Your task to perform on an android device: Turn off the flashlight Image 0: 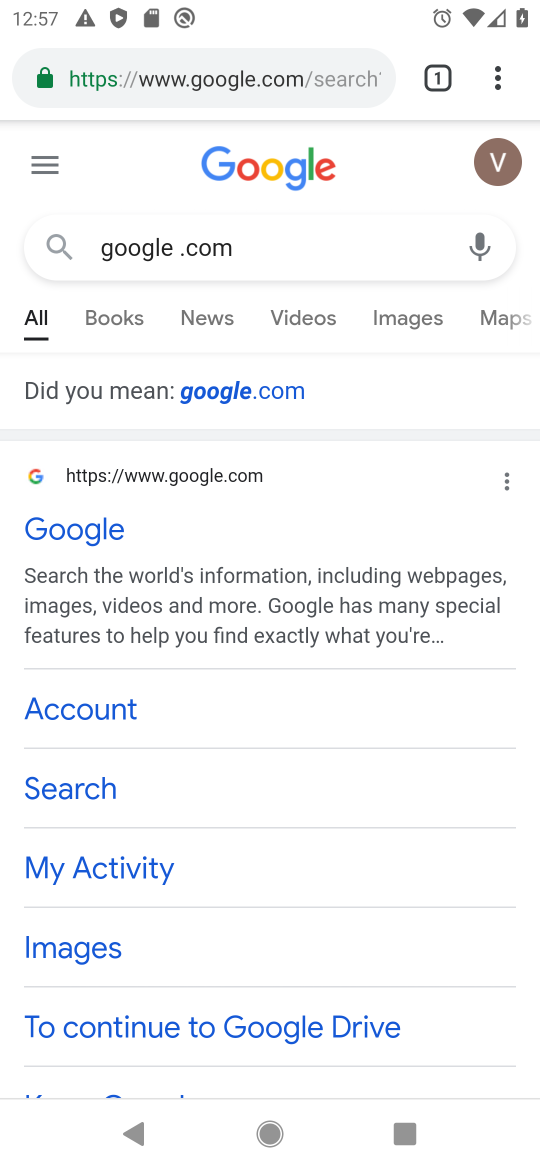
Step 0: press home button
Your task to perform on an android device: Turn off the flashlight Image 1: 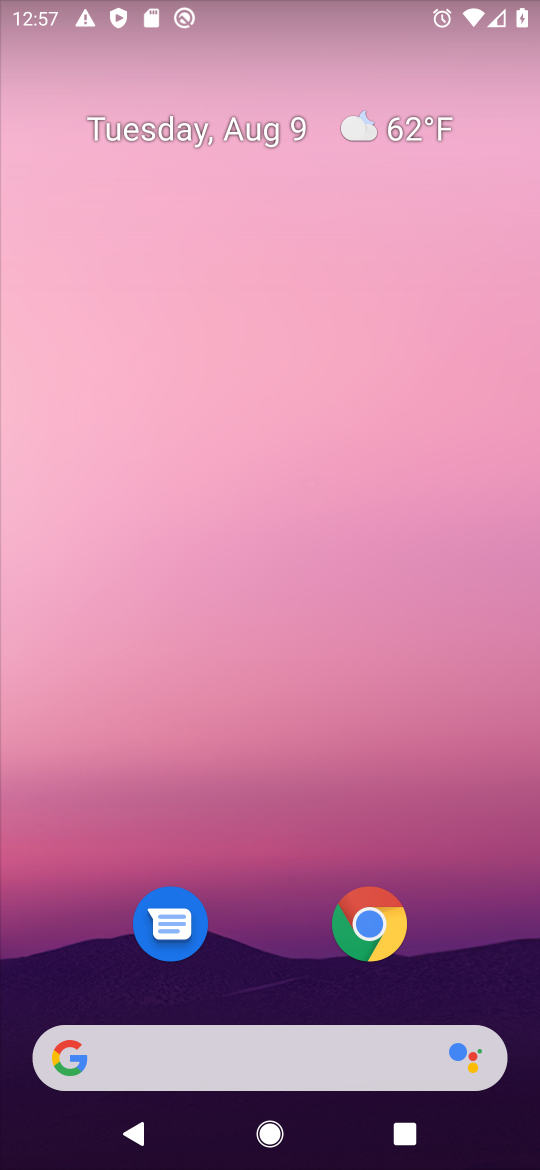
Step 1: drag from (263, 988) to (286, 0)
Your task to perform on an android device: Turn off the flashlight Image 2: 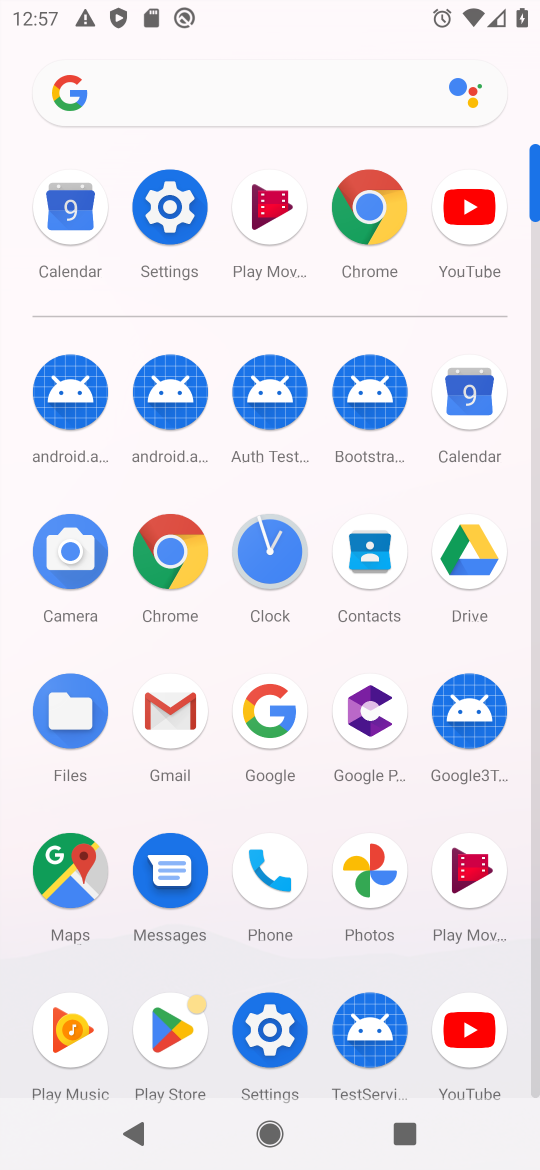
Step 2: click (200, 209)
Your task to perform on an android device: Turn off the flashlight Image 3: 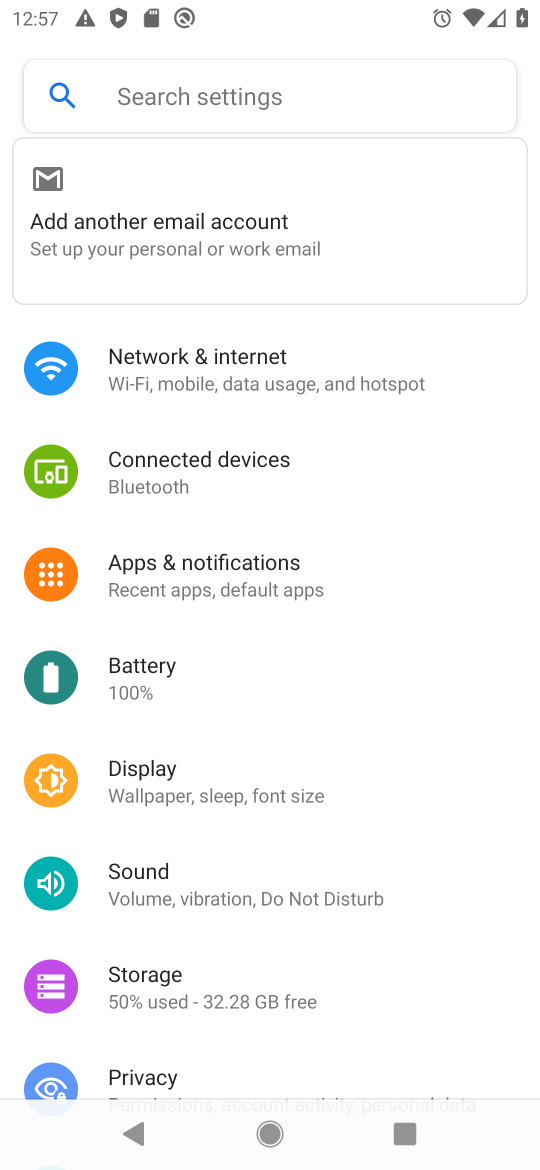
Step 3: task complete